Your task to perform on an android device: Turn off the flashlight Image 0: 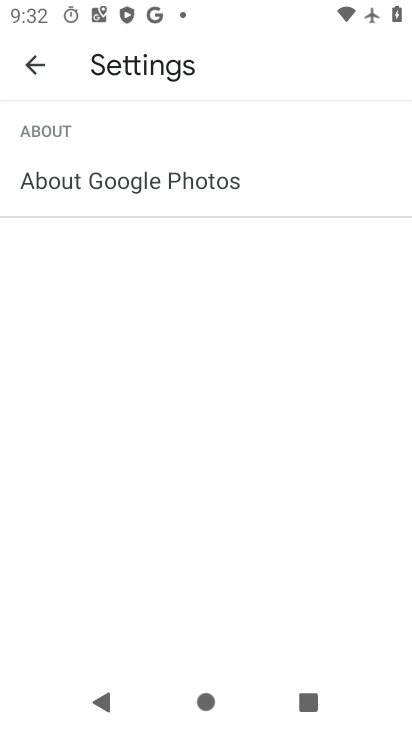
Step 0: drag from (276, 5) to (339, 402)
Your task to perform on an android device: Turn off the flashlight Image 1: 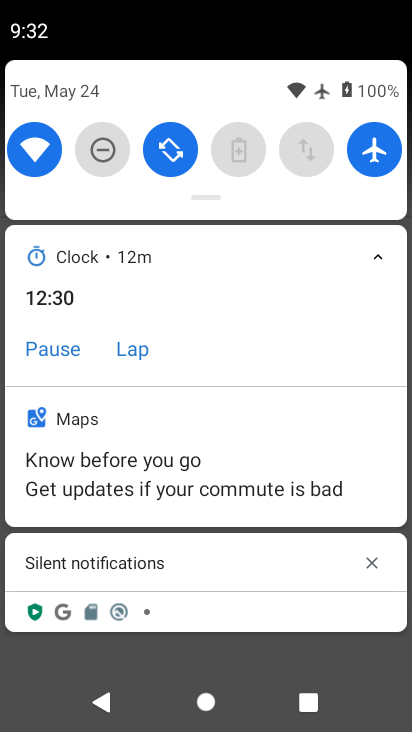
Step 1: task complete